Your task to perform on an android device: check out phone information Image 0: 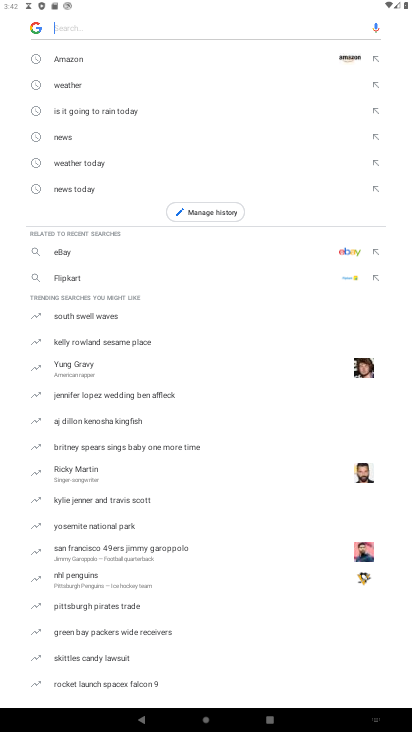
Step 0: press home button
Your task to perform on an android device: check out phone information Image 1: 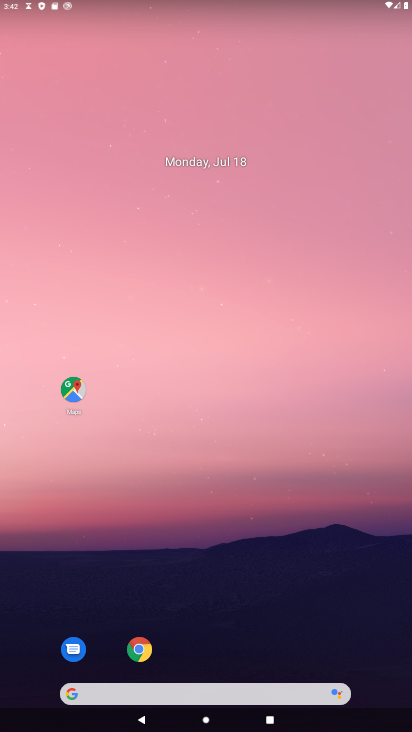
Step 1: drag from (275, 622) to (231, 118)
Your task to perform on an android device: check out phone information Image 2: 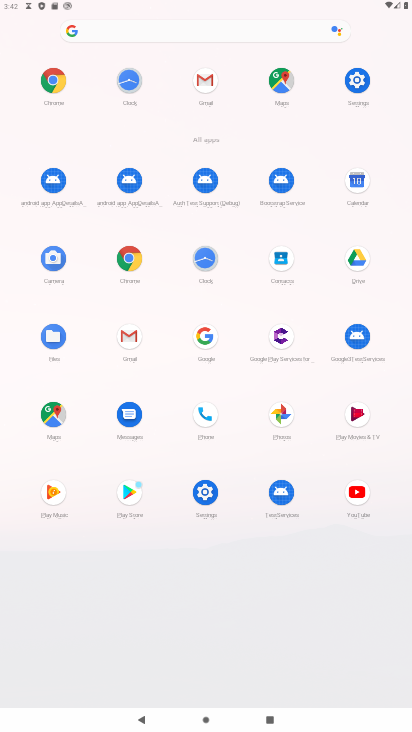
Step 2: click (366, 75)
Your task to perform on an android device: check out phone information Image 3: 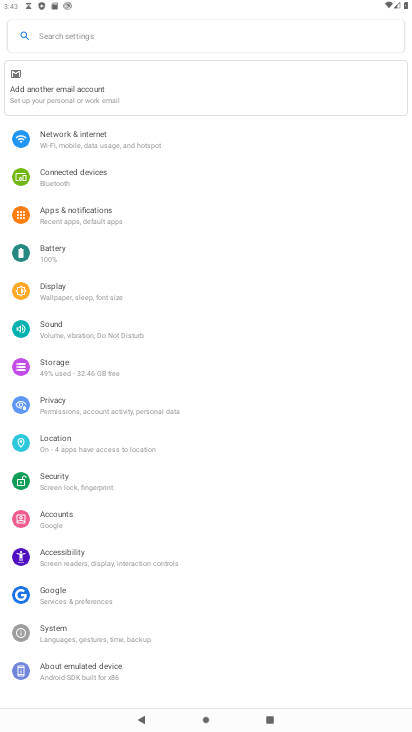
Step 3: click (80, 670)
Your task to perform on an android device: check out phone information Image 4: 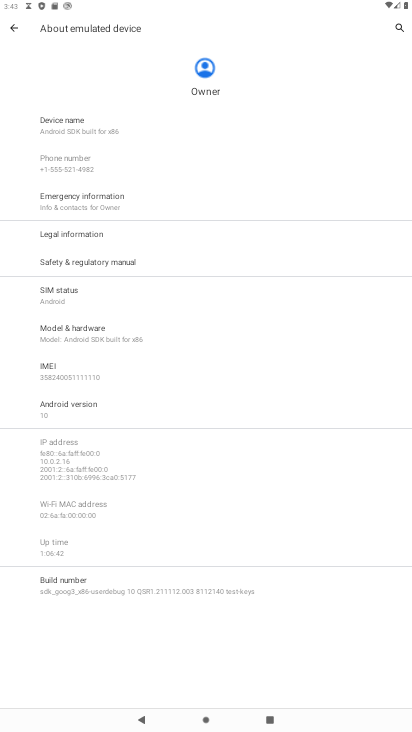
Step 4: click (107, 198)
Your task to perform on an android device: check out phone information Image 5: 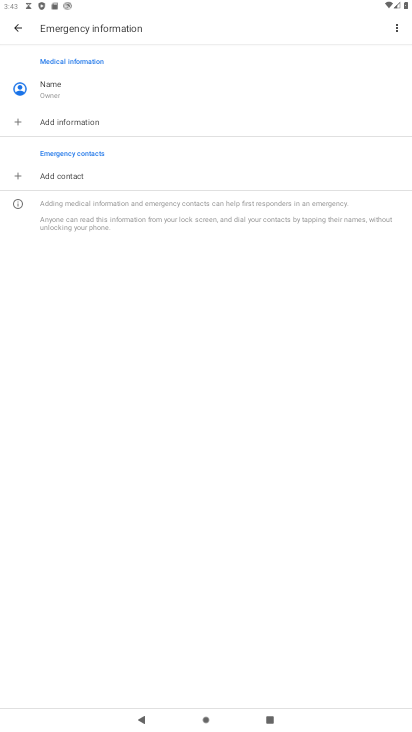
Step 5: task complete